Your task to perform on an android device: open app "Microsoft Excel" Image 0: 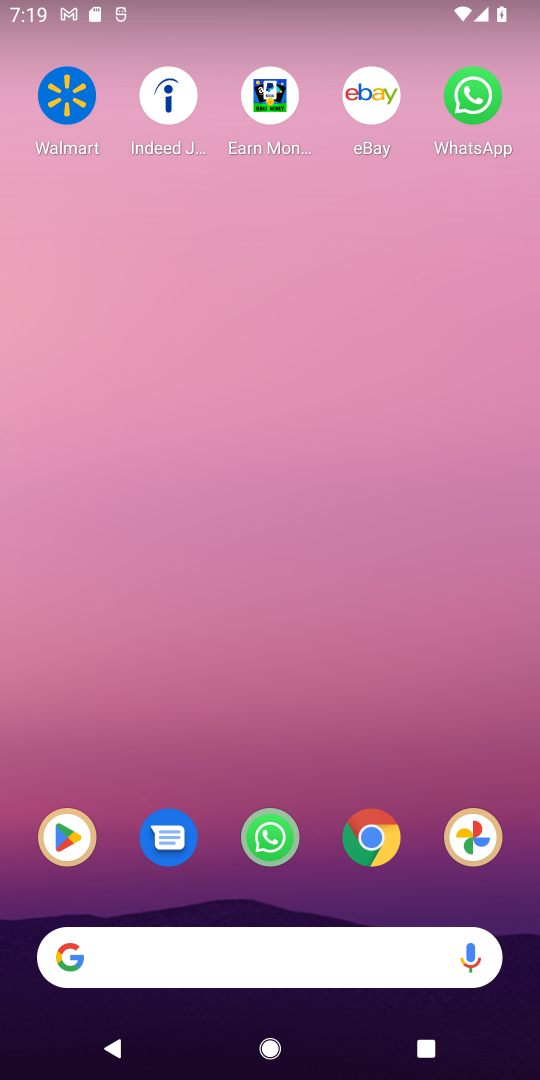
Step 0: drag from (218, 882) to (323, 170)
Your task to perform on an android device: open app "Microsoft Excel" Image 1: 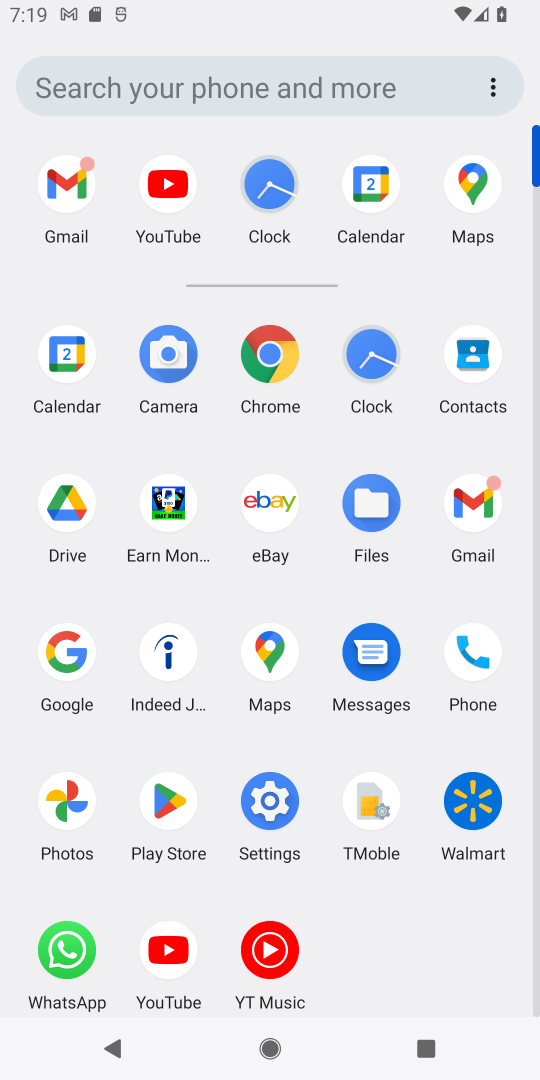
Step 1: click (166, 777)
Your task to perform on an android device: open app "Microsoft Excel" Image 2: 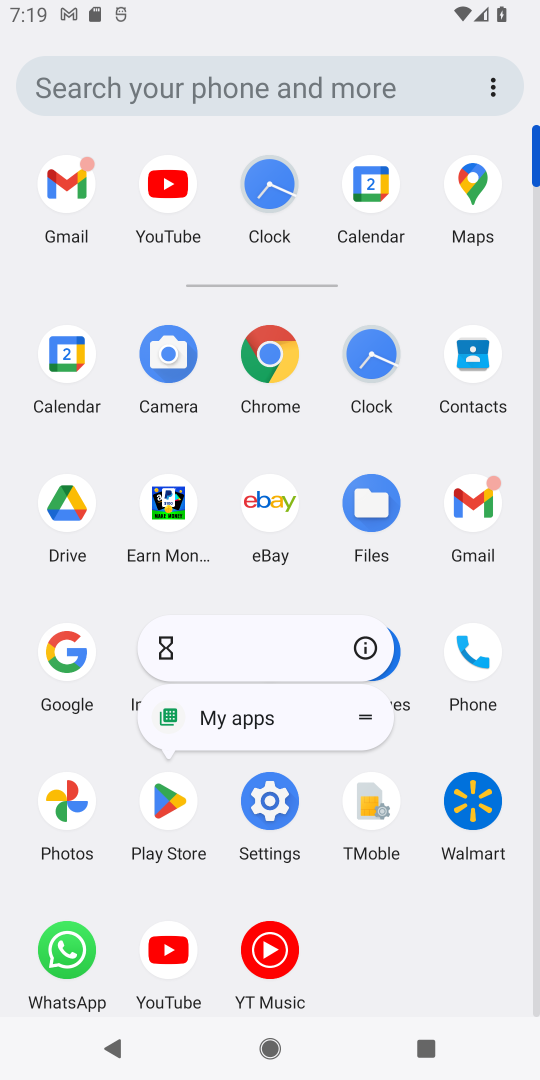
Step 2: click (361, 653)
Your task to perform on an android device: open app "Microsoft Excel" Image 3: 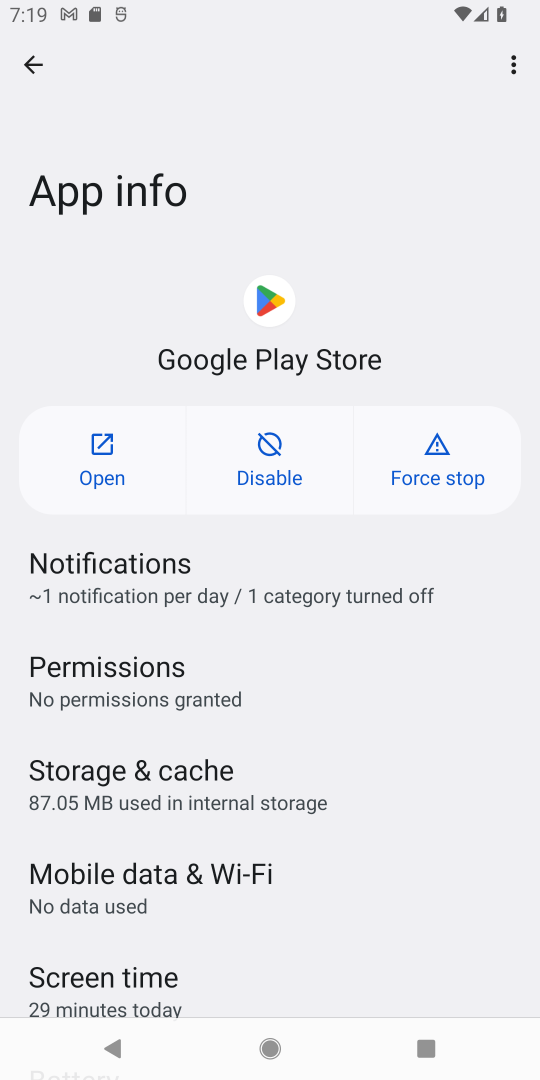
Step 3: click (93, 448)
Your task to perform on an android device: open app "Microsoft Excel" Image 4: 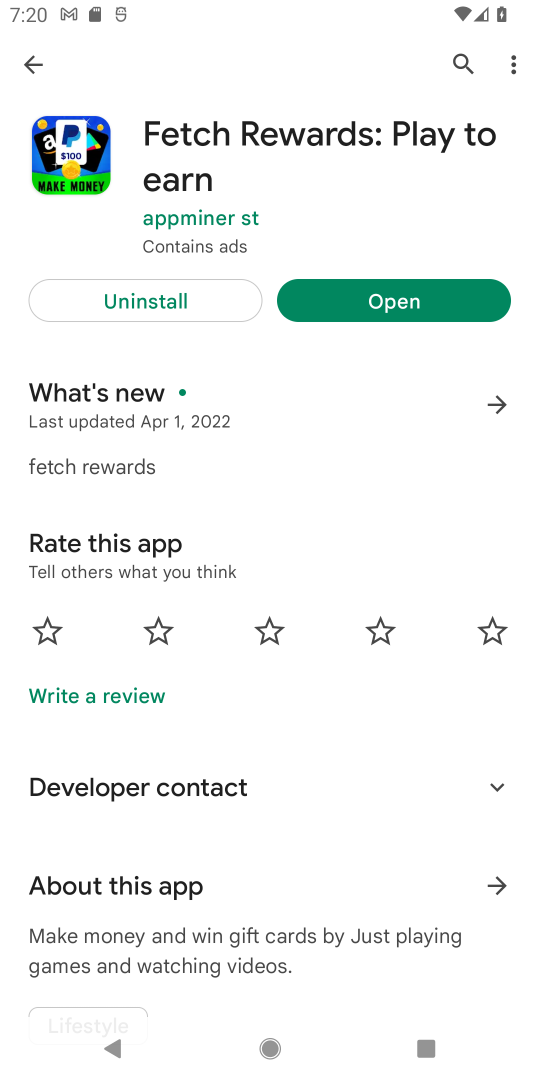
Step 4: drag from (191, 706) to (260, 1042)
Your task to perform on an android device: open app "Microsoft Excel" Image 5: 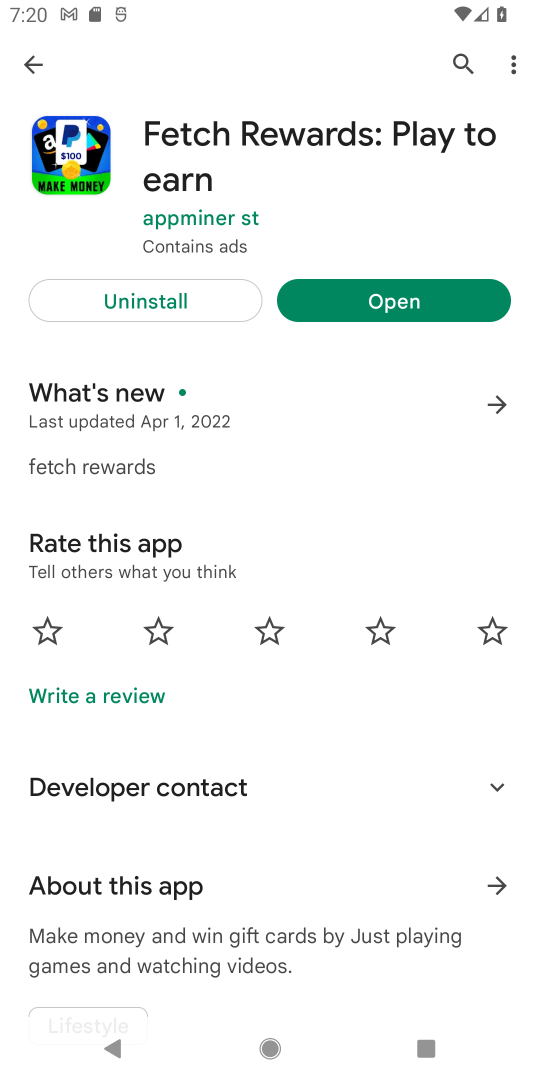
Step 5: click (471, 68)
Your task to perform on an android device: open app "Microsoft Excel" Image 6: 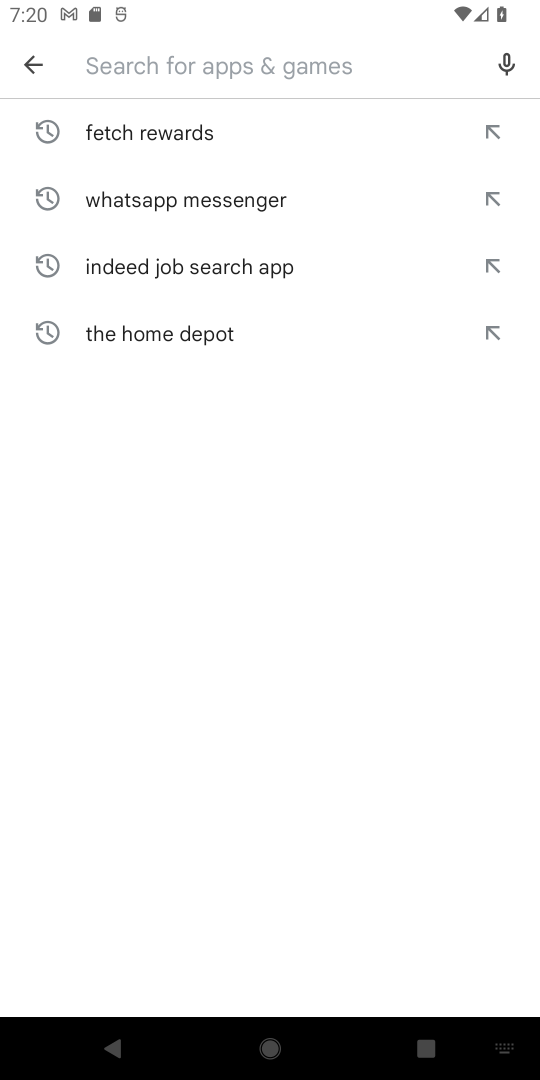
Step 6: click (314, 75)
Your task to perform on an android device: open app "Microsoft Excel" Image 7: 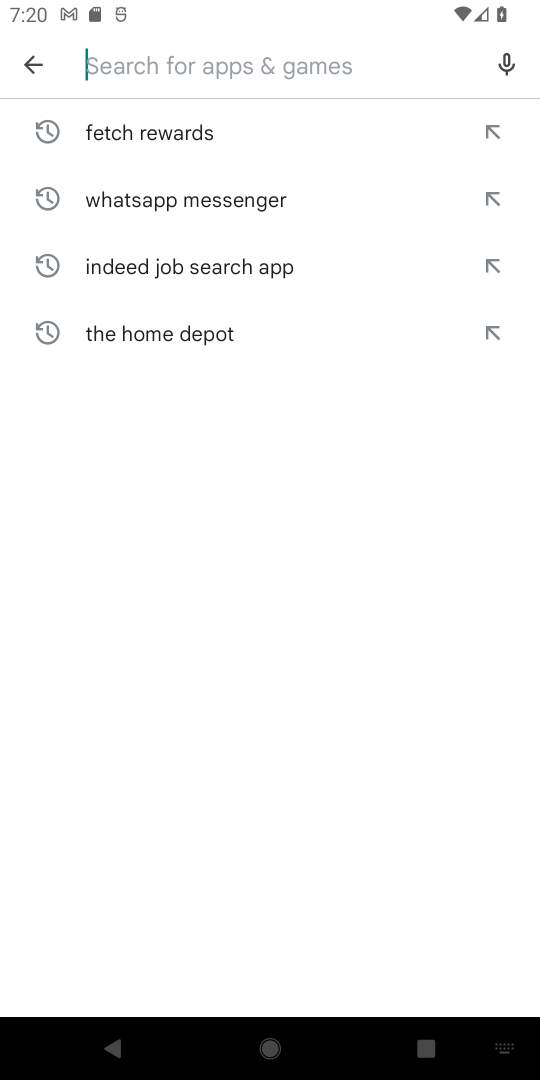
Step 7: type "Microsoft Excel"
Your task to perform on an android device: open app "Microsoft Excel" Image 8: 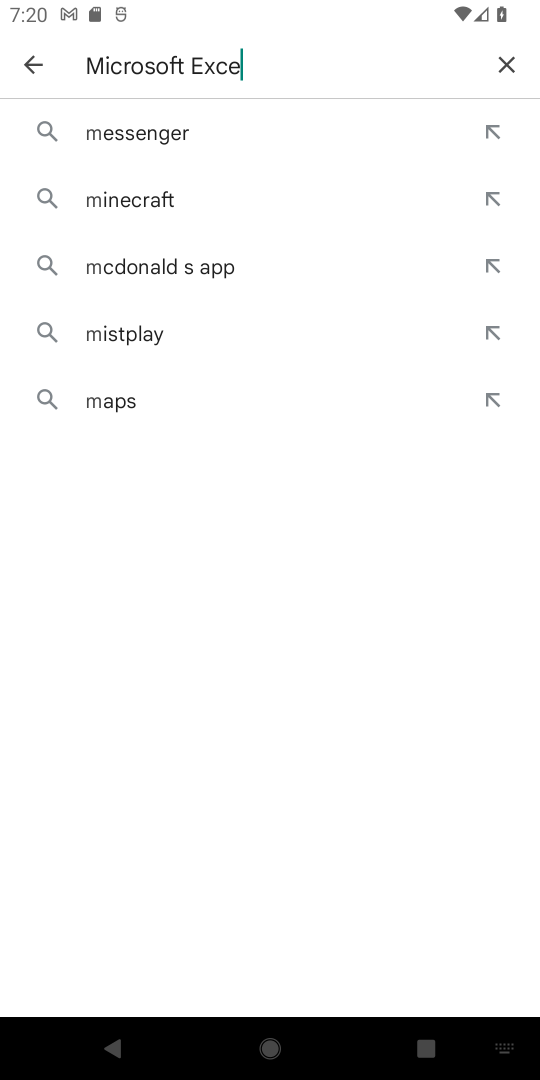
Step 8: type ""
Your task to perform on an android device: open app "Microsoft Excel" Image 9: 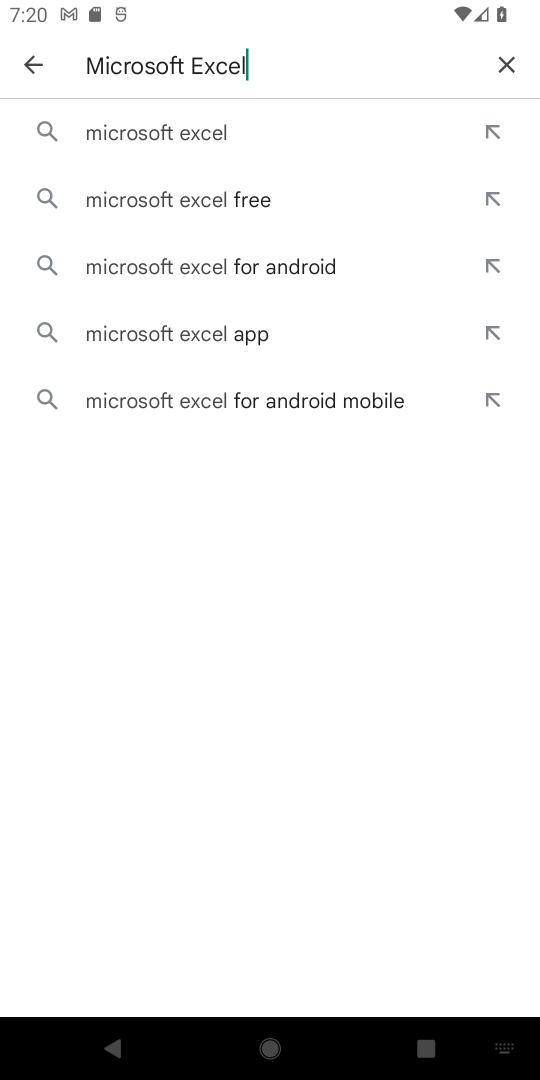
Step 9: click (176, 123)
Your task to perform on an android device: open app "Microsoft Excel" Image 10: 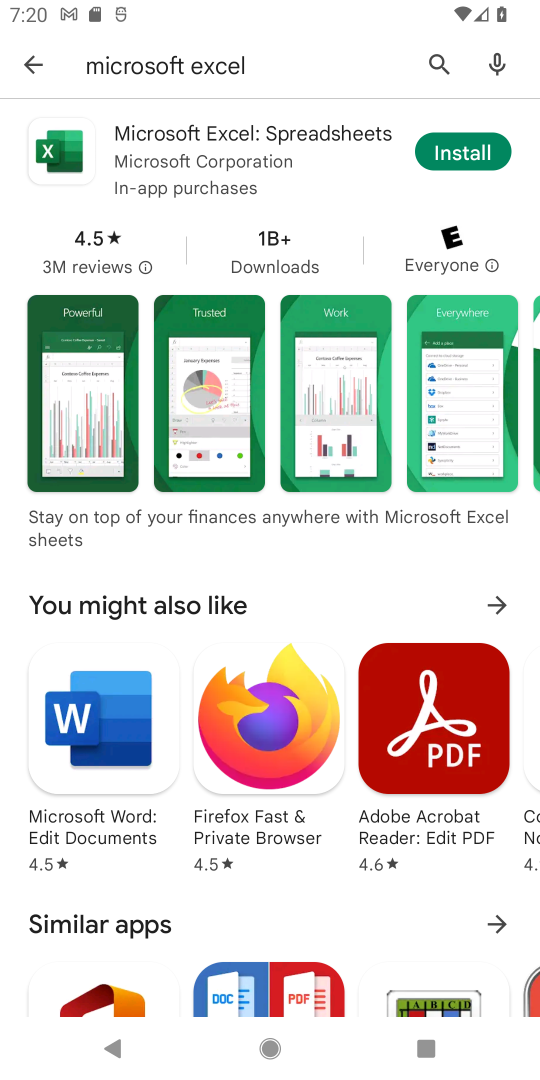
Step 10: click (169, 139)
Your task to perform on an android device: open app "Microsoft Excel" Image 11: 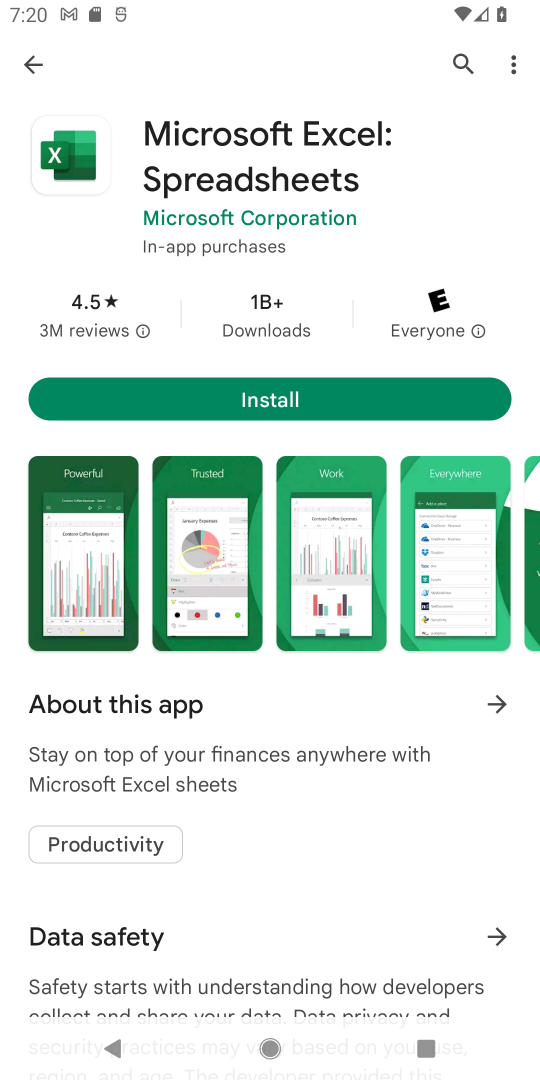
Step 11: task complete